Your task to perform on an android device: move an email to a new category in the gmail app Image 0: 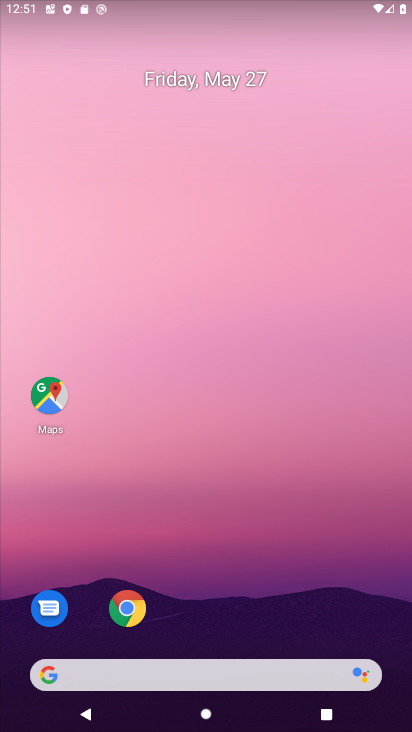
Step 0: drag from (219, 614) to (300, 157)
Your task to perform on an android device: move an email to a new category in the gmail app Image 1: 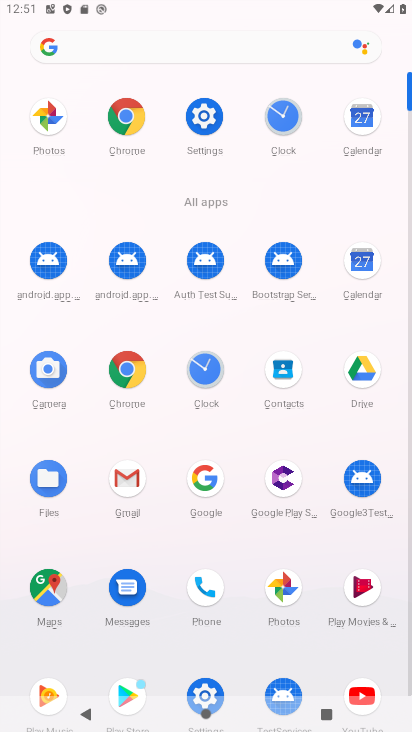
Step 1: click (124, 476)
Your task to perform on an android device: move an email to a new category in the gmail app Image 2: 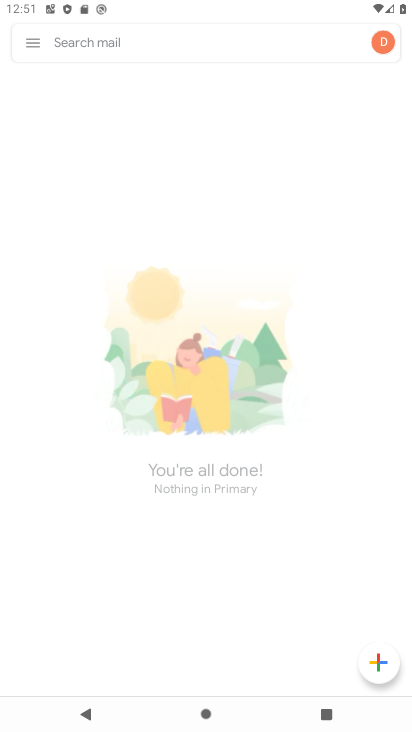
Step 2: click (33, 41)
Your task to perform on an android device: move an email to a new category in the gmail app Image 3: 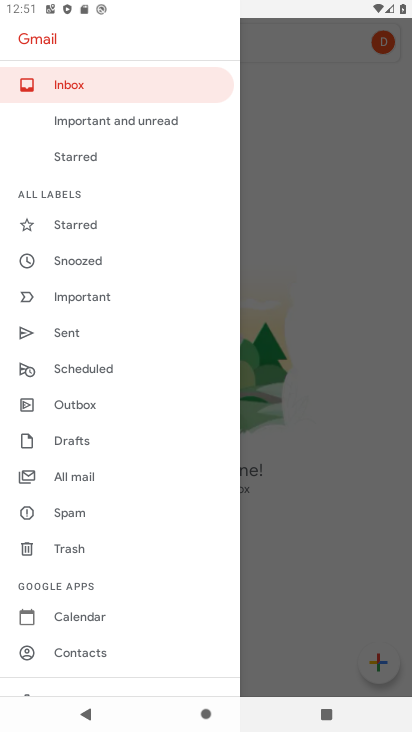
Step 3: click (77, 478)
Your task to perform on an android device: move an email to a new category in the gmail app Image 4: 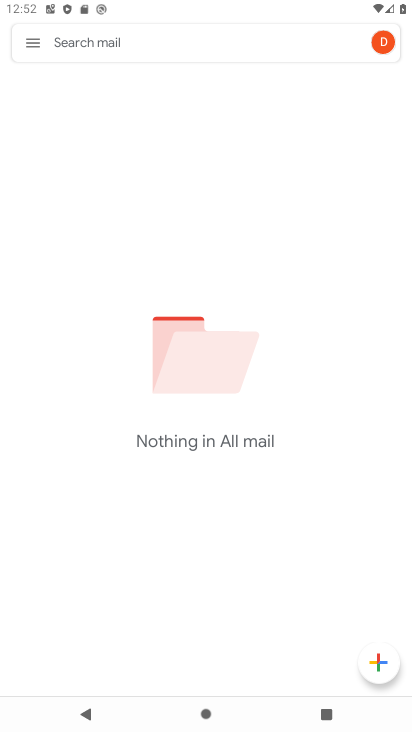
Step 4: task complete